Your task to perform on an android device: open sync settings in chrome Image 0: 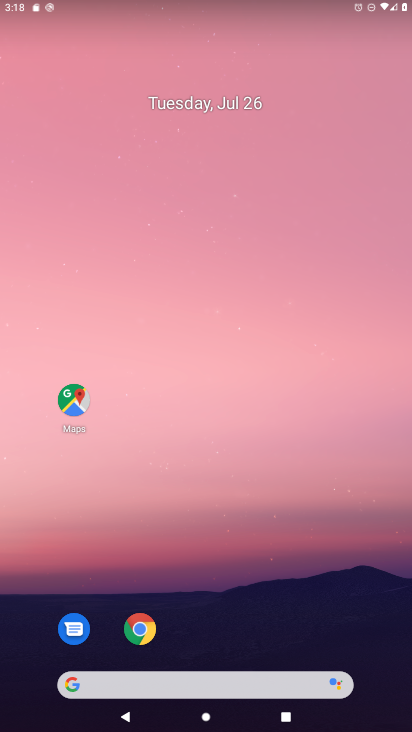
Step 0: click (145, 622)
Your task to perform on an android device: open sync settings in chrome Image 1: 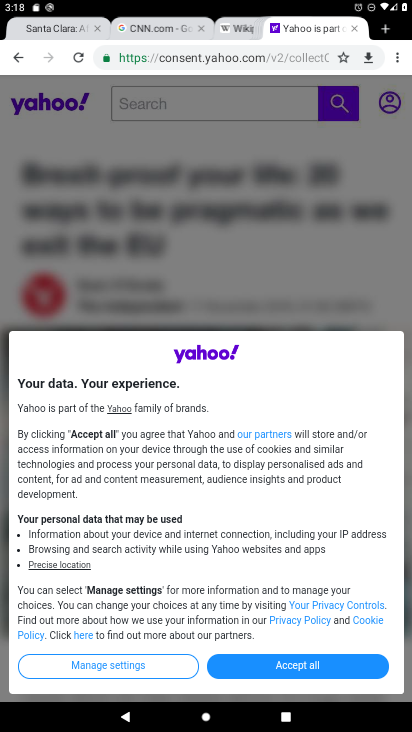
Step 1: click (397, 57)
Your task to perform on an android device: open sync settings in chrome Image 2: 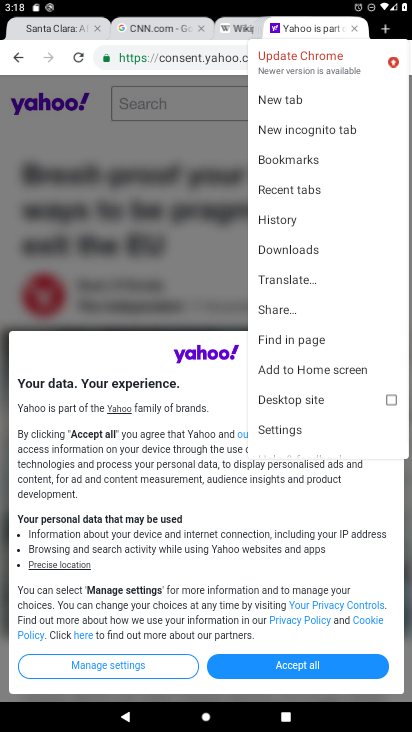
Step 2: click (303, 430)
Your task to perform on an android device: open sync settings in chrome Image 3: 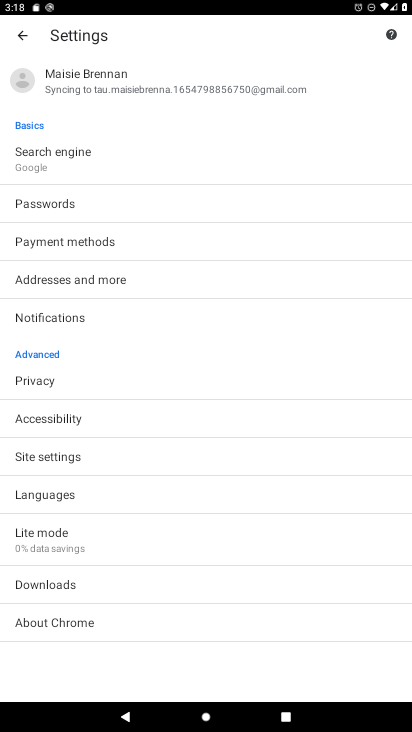
Step 3: click (154, 96)
Your task to perform on an android device: open sync settings in chrome Image 4: 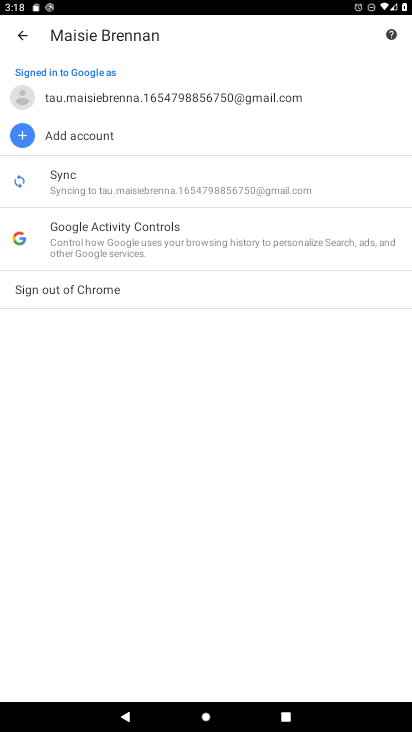
Step 4: click (111, 187)
Your task to perform on an android device: open sync settings in chrome Image 5: 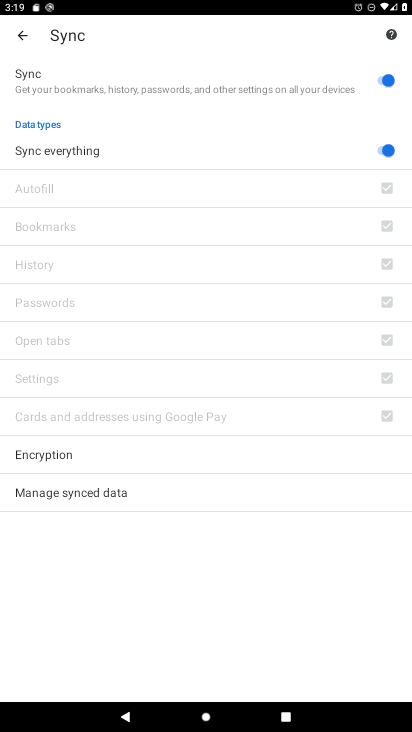
Step 5: task complete